Your task to perform on an android device: turn on sleep mode Image 0: 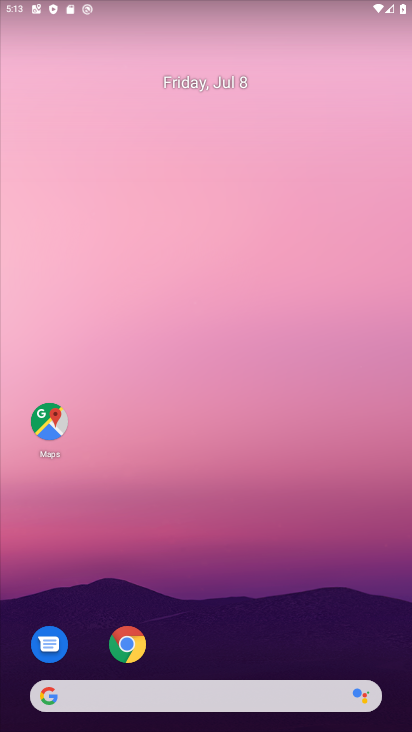
Step 0: task impossible